Your task to perform on an android device: Go to Wikipedia Image 0: 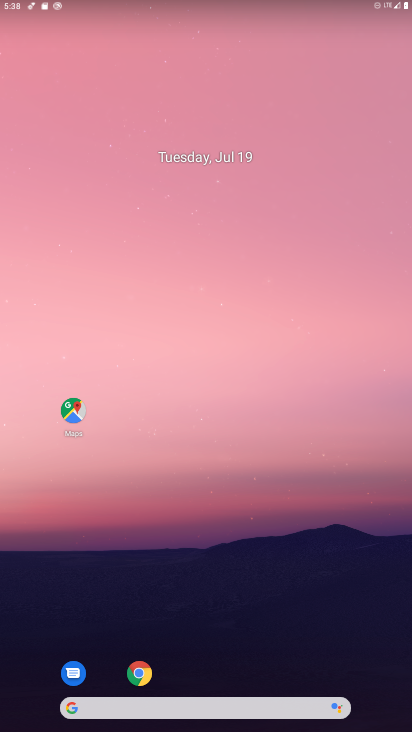
Step 0: press home button
Your task to perform on an android device: Go to Wikipedia Image 1: 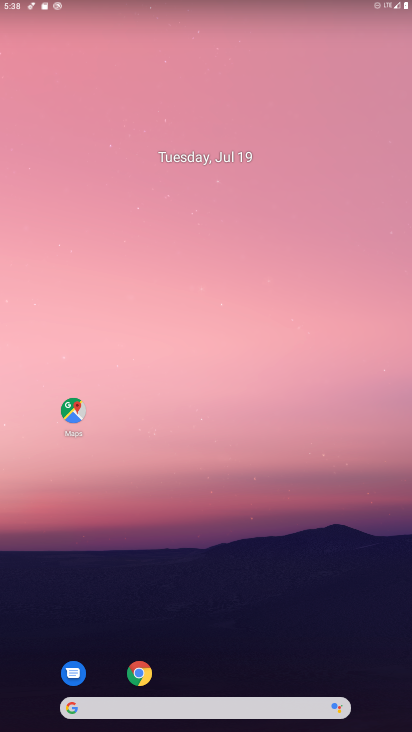
Step 1: drag from (223, 680) to (254, 0)
Your task to perform on an android device: Go to Wikipedia Image 2: 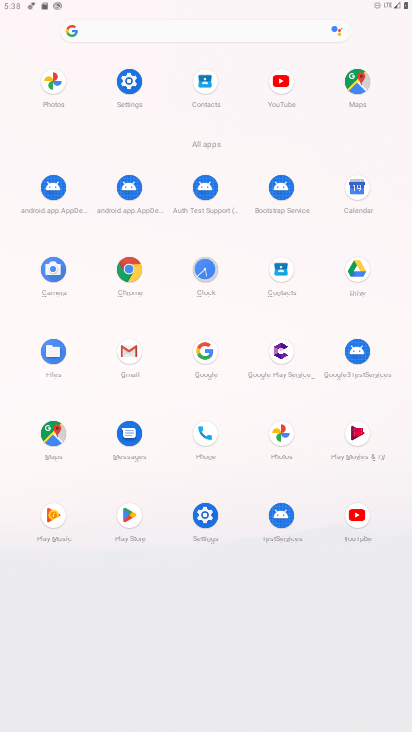
Step 2: click (130, 267)
Your task to perform on an android device: Go to Wikipedia Image 3: 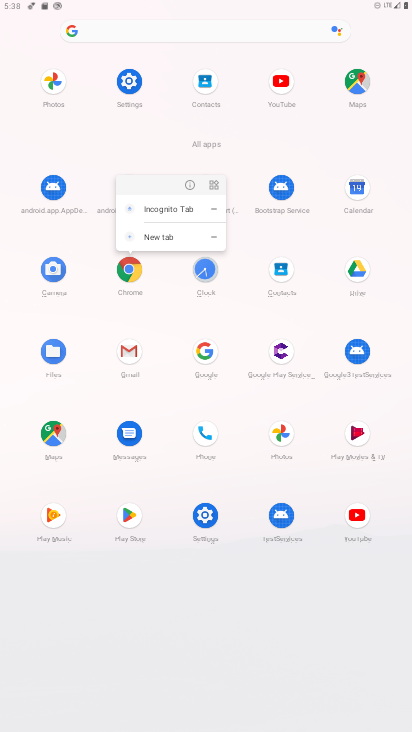
Step 3: click (127, 263)
Your task to perform on an android device: Go to Wikipedia Image 4: 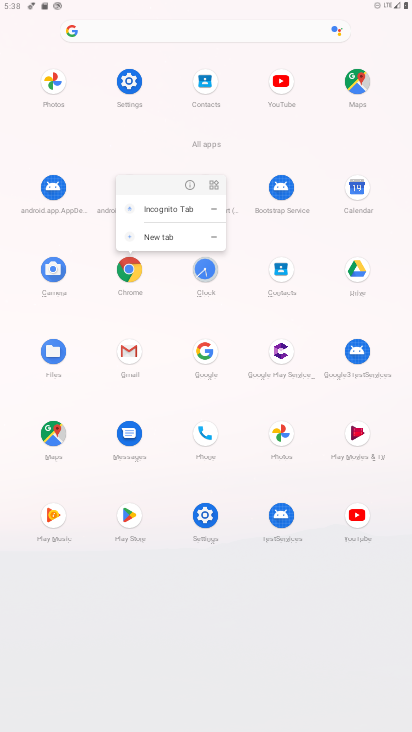
Step 4: click (128, 264)
Your task to perform on an android device: Go to Wikipedia Image 5: 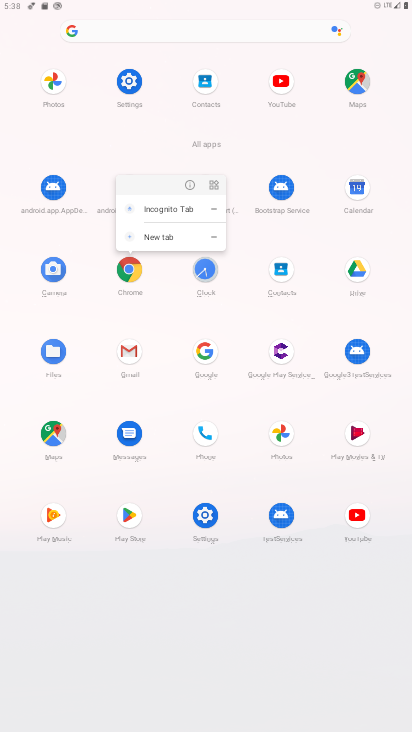
Step 5: click (128, 264)
Your task to perform on an android device: Go to Wikipedia Image 6: 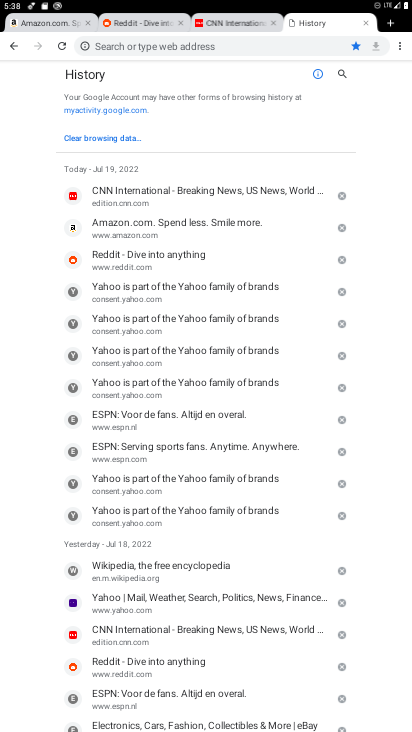
Step 6: click (389, 19)
Your task to perform on an android device: Go to Wikipedia Image 7: 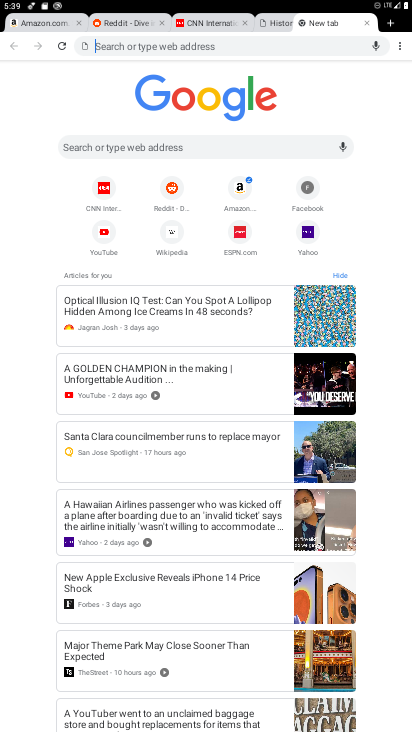
Step 7: click (173, 229)
Your task to perform on an android device: Go to Wikipedia Image 8: 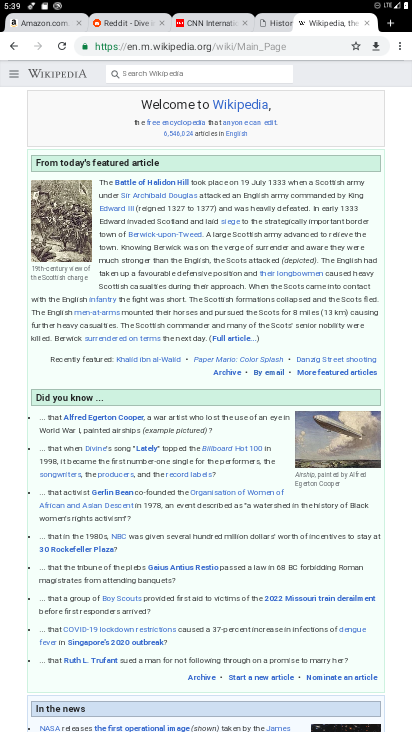
Step 8: task complete